Your task to perform on an android device: find which apps use the phone's location Image 0: 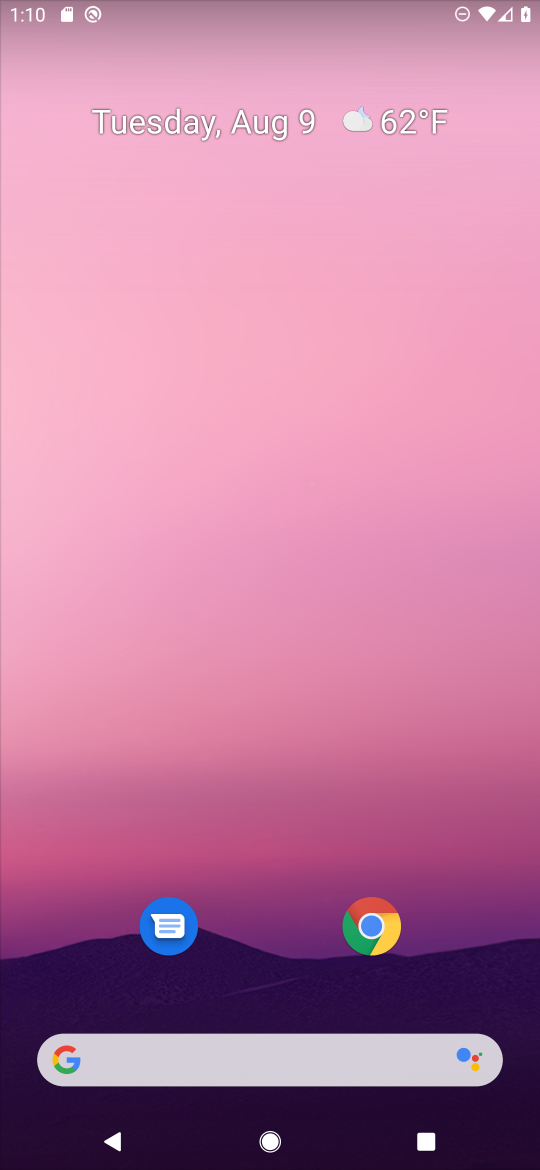
Step 0: drag from (103, 370) to (198, 111)
Your task to perform on an android device: find which apps use the phone's location Image 1: 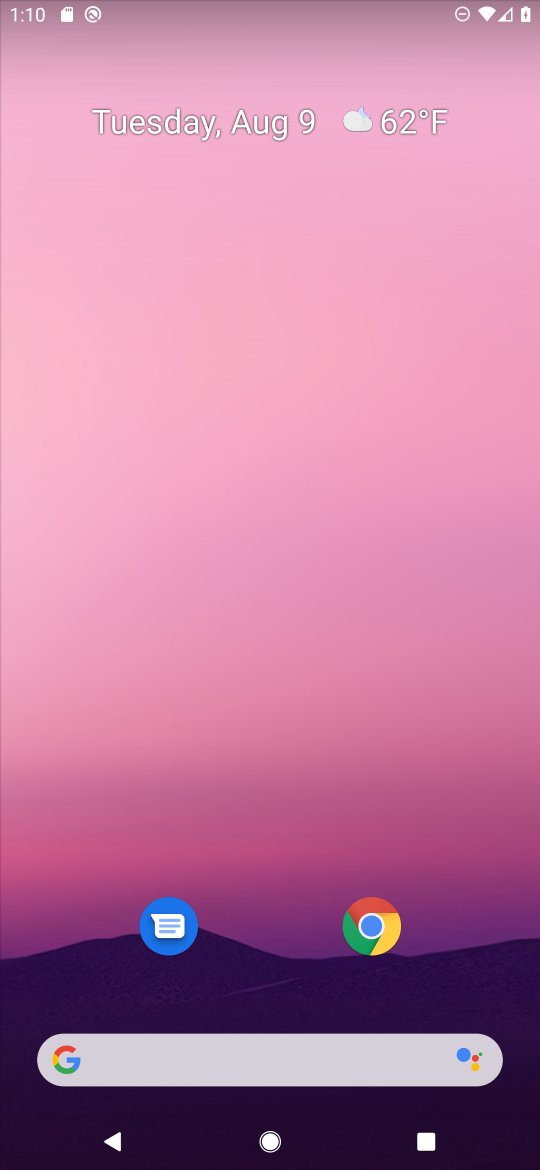
Step 1: drag from (181, 652) to (347, 77)
Your task to perform on an android device: find which apps use the phone's location Image 2: 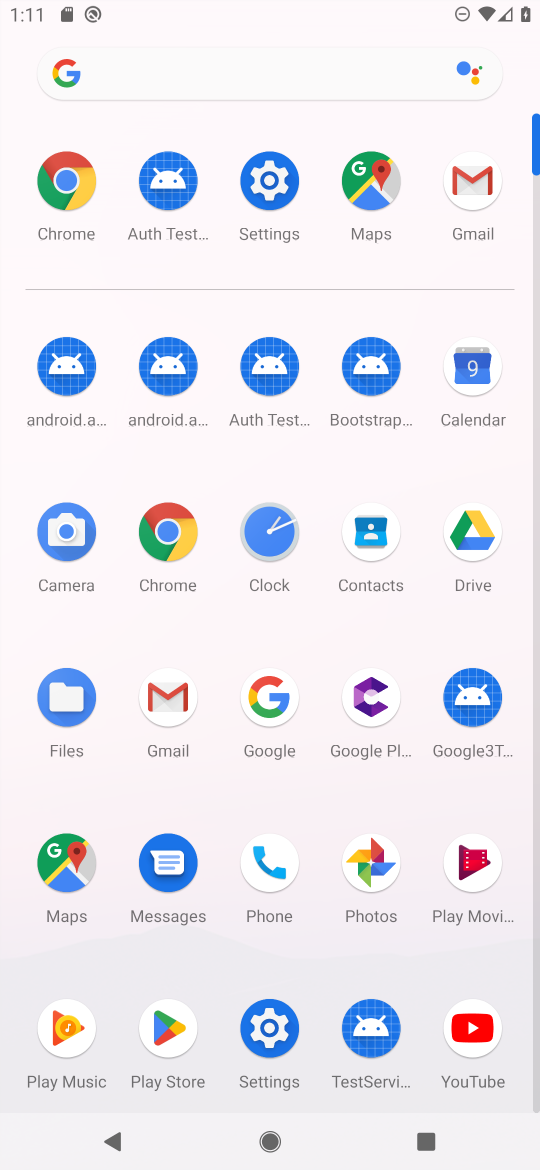
Step 2: click (271, 185)
Your task to perform on an android device: find which apps use the phone's location Image 3: 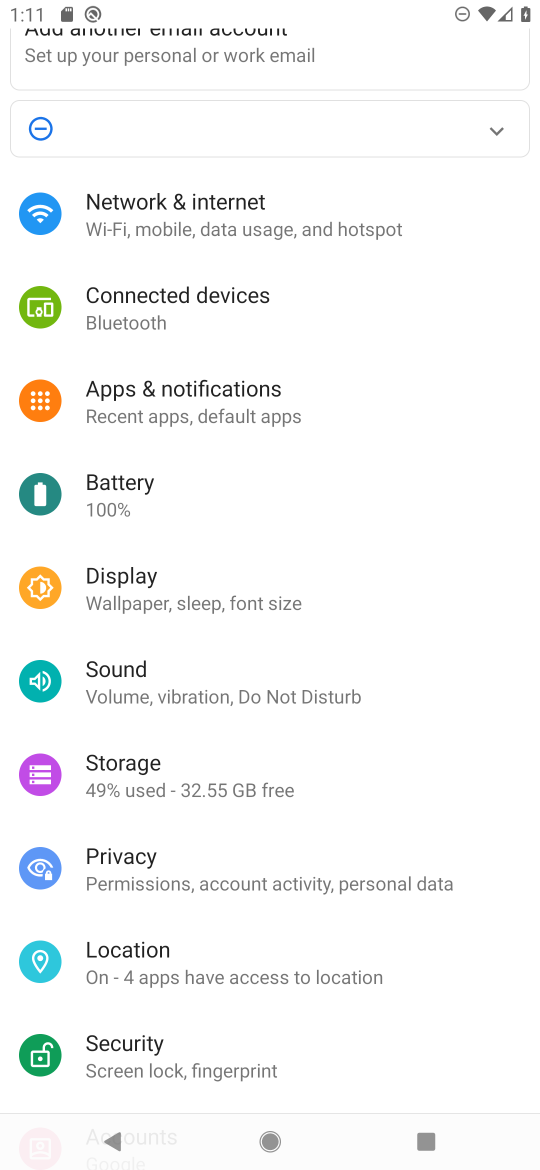
Step 3: click (168, 956)
Your task to perform on an android device: find which apps use the phone's location Image 4: 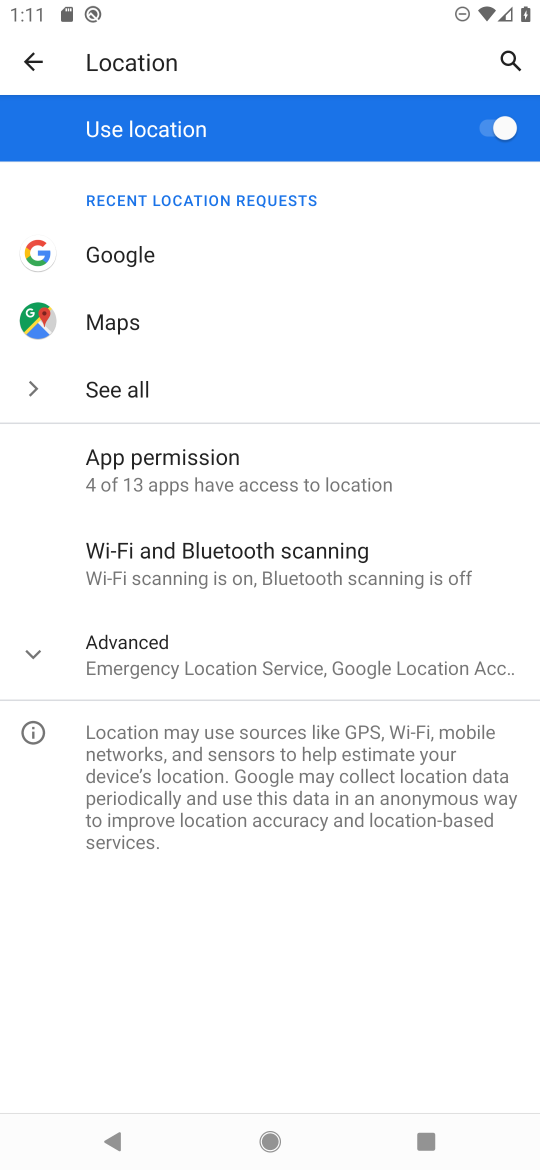
Step 4: click (94, 481)
Your task to perform on an android device: find which apps use the phone's location Image 5: 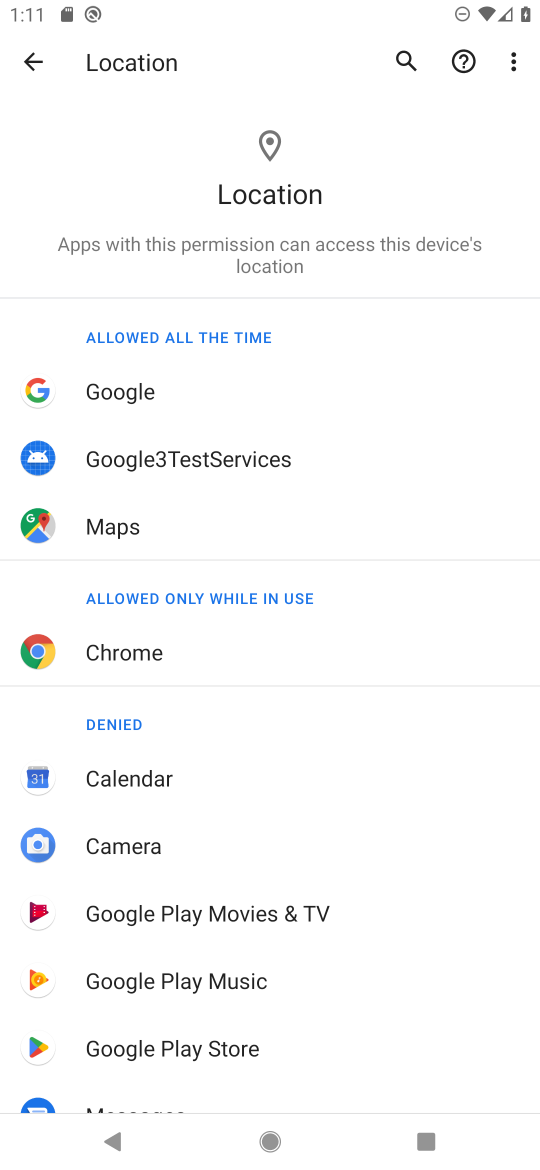
Step 5: task complete